Your task to perform on an android device: Turn off the flashlight Image 0: 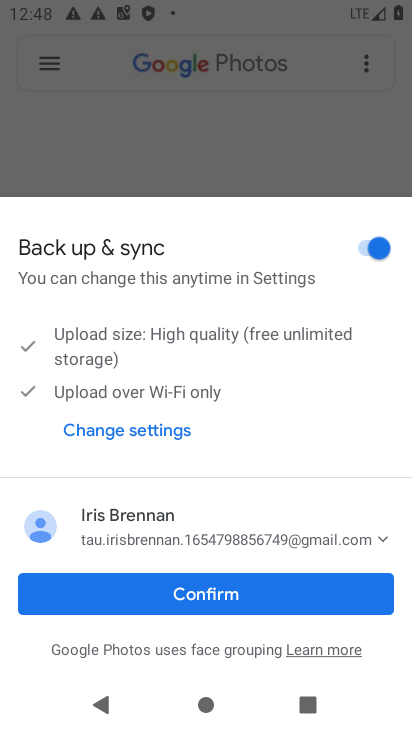
Step 0: press home button
Your task to perform on an android device: Turn off the flashlight Image 1: 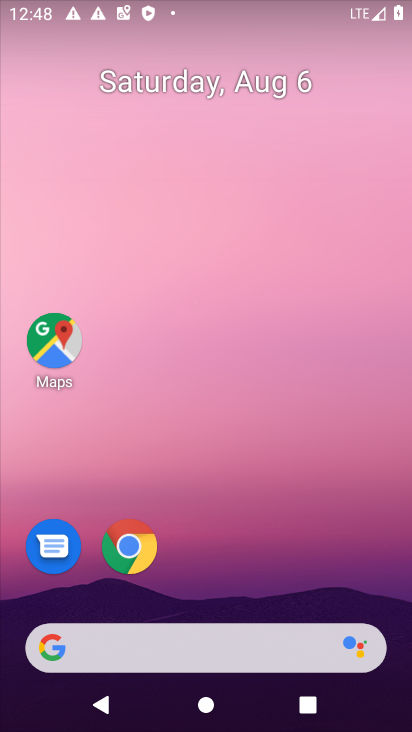
Step 1: drag from (241, 14) to (217, 545)
Your task to perform on an android device: Turn off the flashlight Image 2: 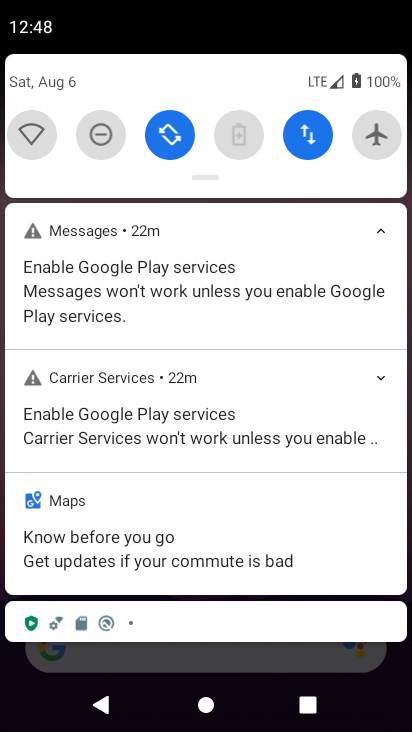
Step 2: drag from (201, 185) to (187, 406)
Your task to perform on an android device: Turn off the flashlight Image 3: 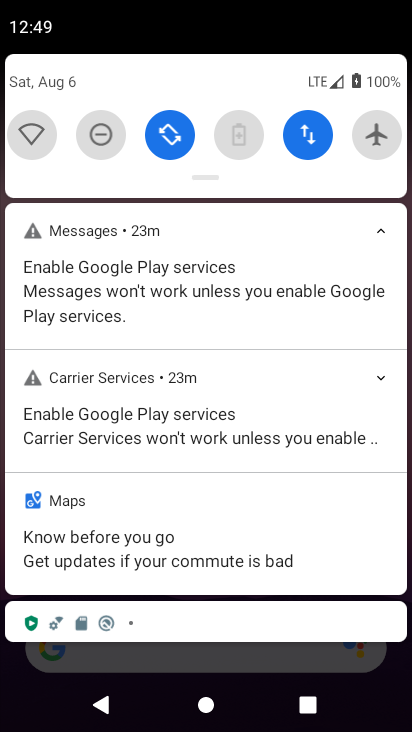
Step 3: drag from (200, 183) to (144, 612)
Your task to perform on an android device: Turn off the flashlight Image 4: 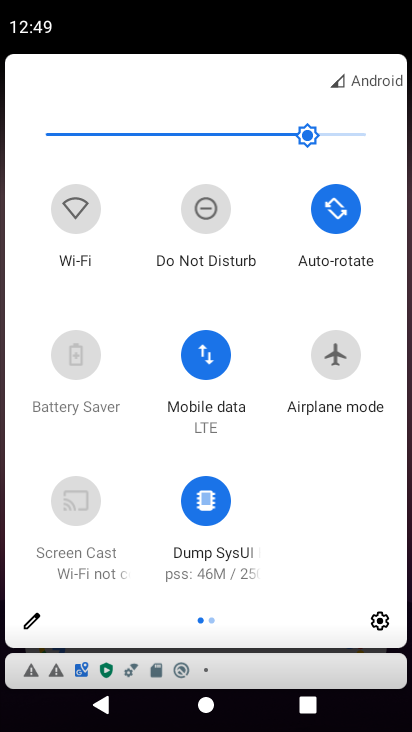
Step 4: click (28, 623)
Your task to perform on an android device: Turn off the flashlight Image 5: 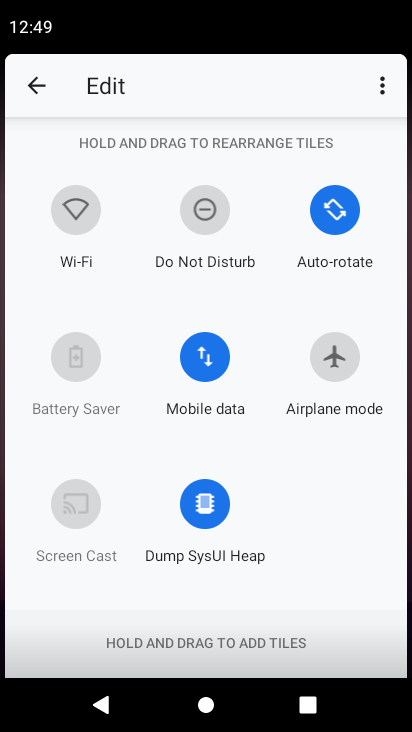
Step 5: task complete